Your task to perform on an android device: Search for a new desk on IKEA. Image 0: 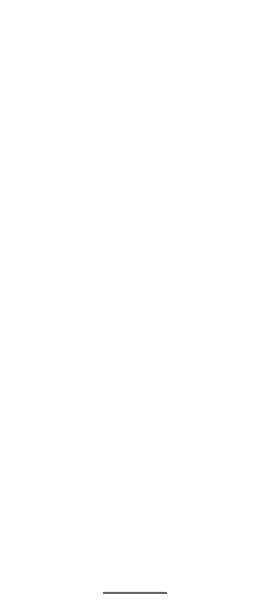
Step 0: press home button
Your task to perform on an android device: Search for a new desk on IKEA. Image 1: 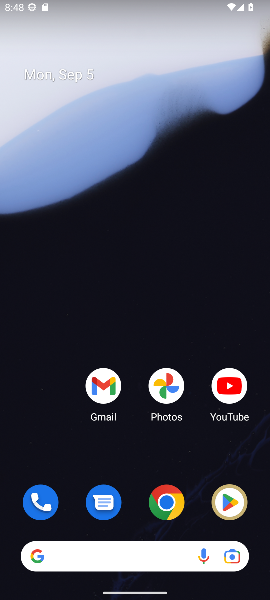
Step 1: drag from (199, 464) to (94, 9)
Your task to perform on an android device: Search for a new desk on IKEA. Image 2: 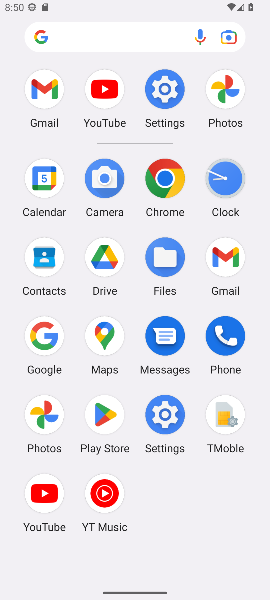
Step 2: click (46, 334)
Your task to perform on an android device: Search for a new desk on IKEA. Image 3: 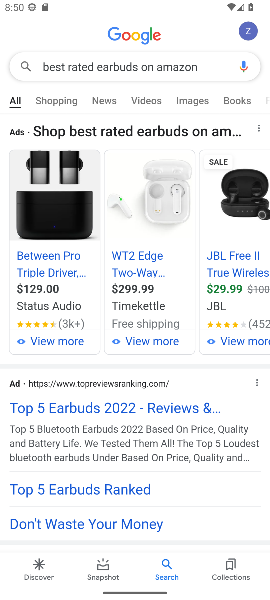
Step 3: press back button
Your task to perform on an android device: Search for a new desk on IKEA. Image 4: 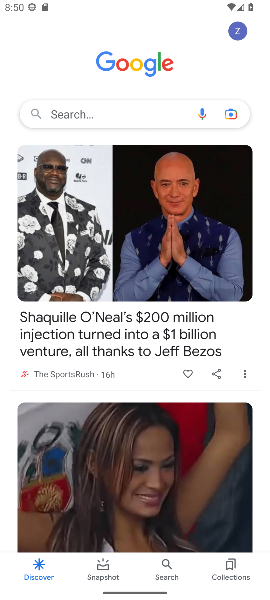
Step 4: click (86, 108)
Your task to perform on an android device: Search for a new desk on IKEA. Image 5: 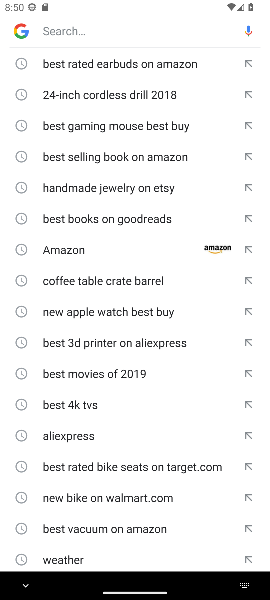
Step 5: type "new desk on IKEA"
Your task to perform on an android device: Search for a new desk on IKEA. Image 6: 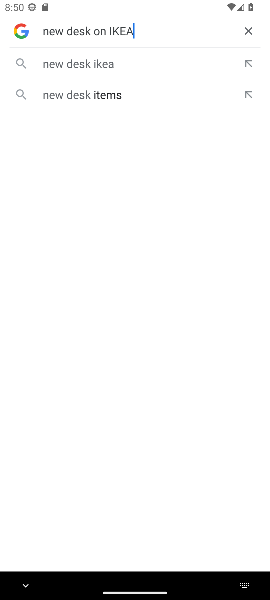
Step 6: click (90, 63)
Your task to perform on an android device: Search for a new desk on IKEA. Image 7: 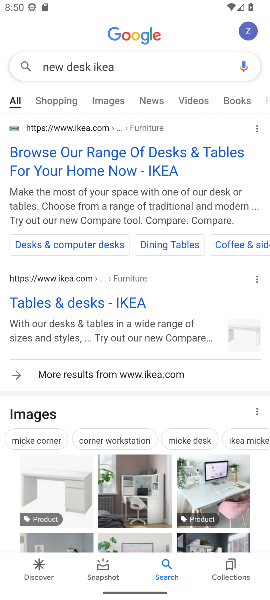
Step 7: task complete